Your task to perform on an android device: Open the stopwatch Image 0: 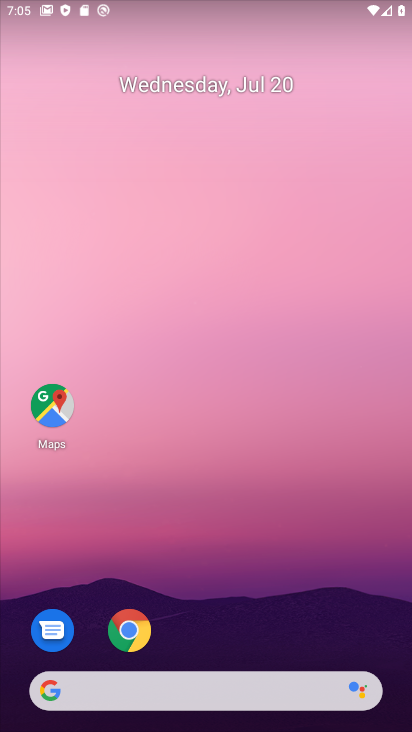
Step 0: drag from (208, 645) to (164, 129)
Your task to perform on an android device: Open the stopwatch Image 1: 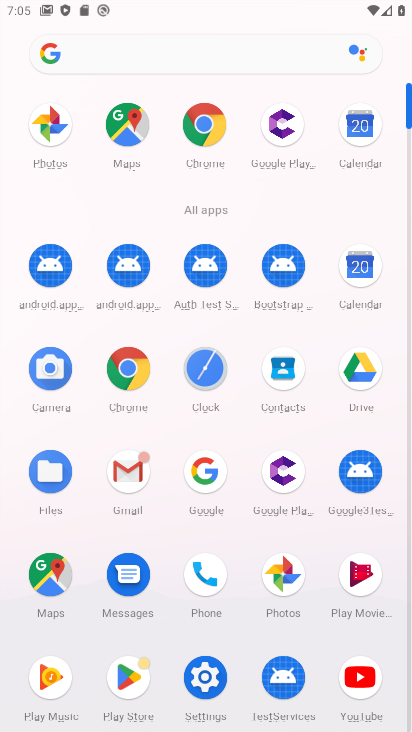
Step 1: click (215, 381)
Your task to perform on an android device: Open the stopwatch Image 2: 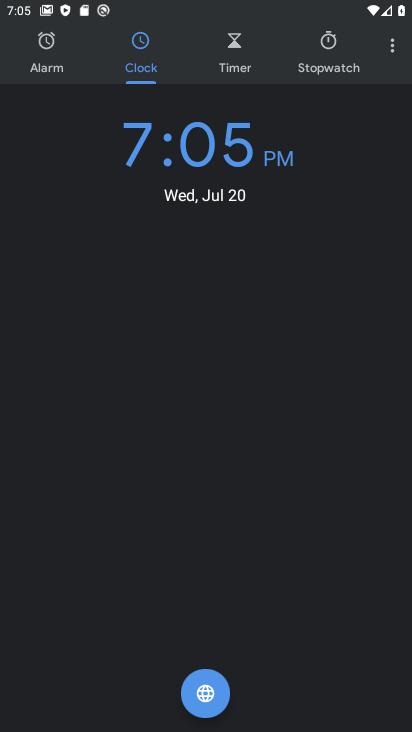
Step 2: click (305, 45)
Your task to perform on an android device: Open the stopwatch Image 3: 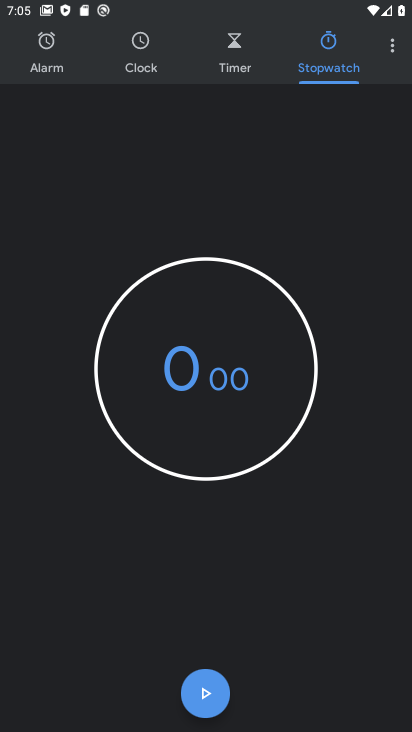
Step 3: task complete